Your task to perform on an android device: turn off improve location accuracy Image 0: 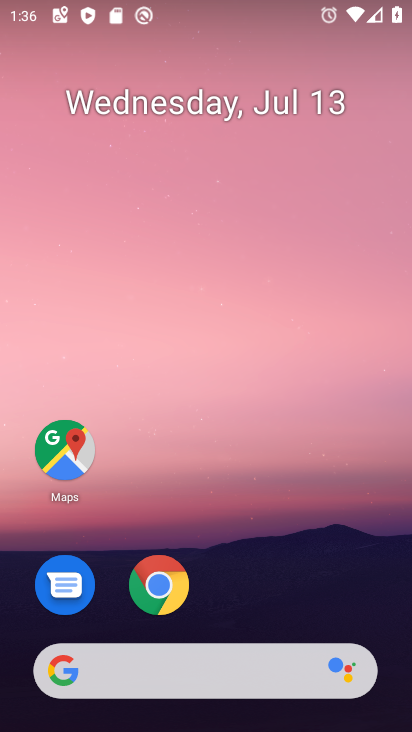
Step 0: press home button
Your task to perform on an android device: turn off improve location accuracy Image 1: 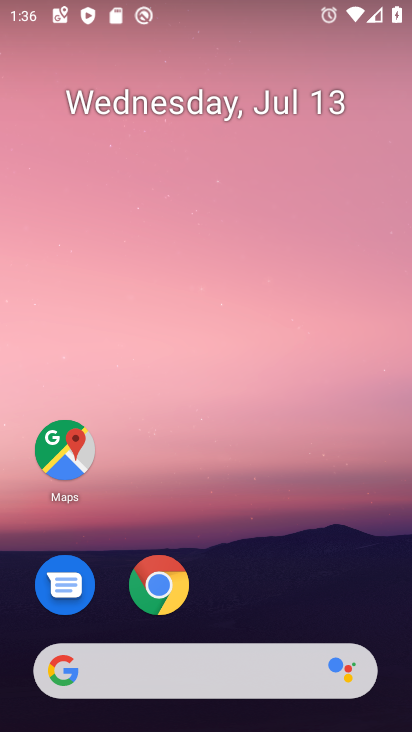
Step 1: drag from (162, 639) to (290, 1)
Your task to perform on an android device: turn off improve location accuracy Image 2: 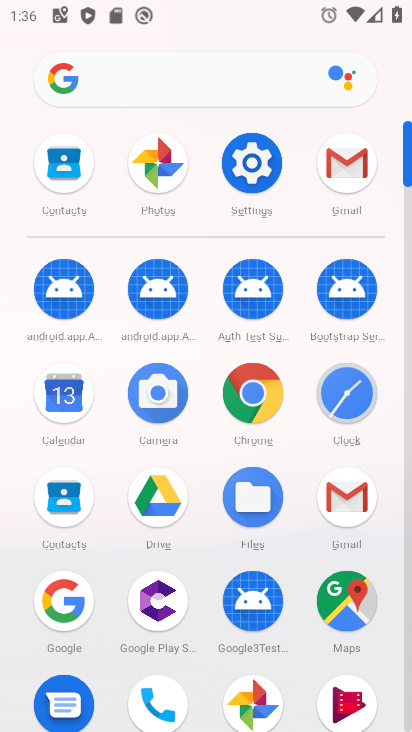
Step 2: click (268, 174)
Your task to perform on an android device: turn off improve location accuracy Image 3: 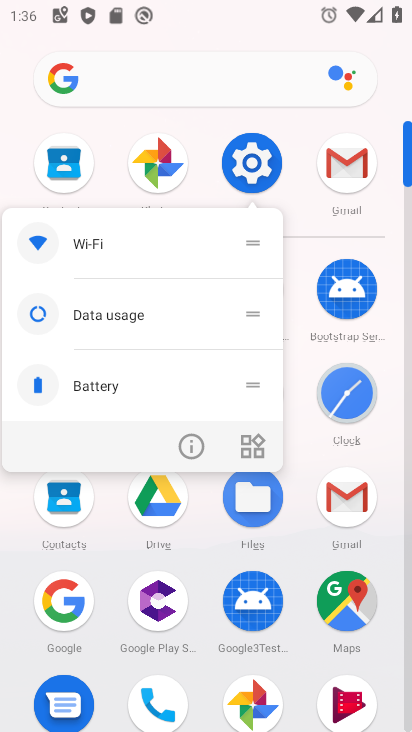
Step 3: click (246, 156)
Your task to perform on an android device: turn off improve location accuracy Image 4: 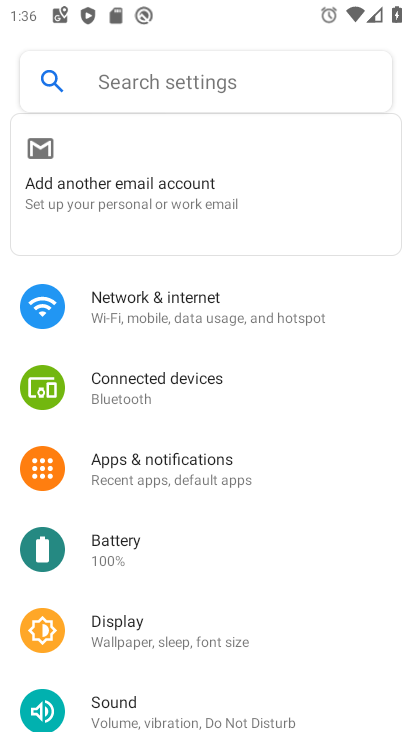
Step 4: drag from (187, 609) to (292, 63)
Your task to perform on an android device: turn off improve location accuracy Image 5: 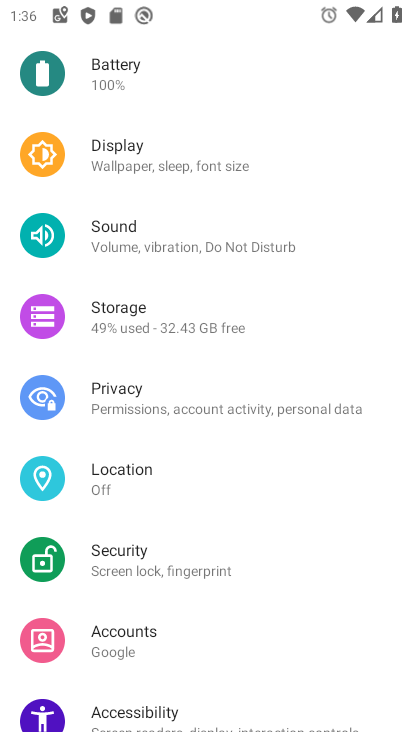
Step 5: click (135, 500)
Your task to perform on an android device: turn off improve location accuracy Image 6: 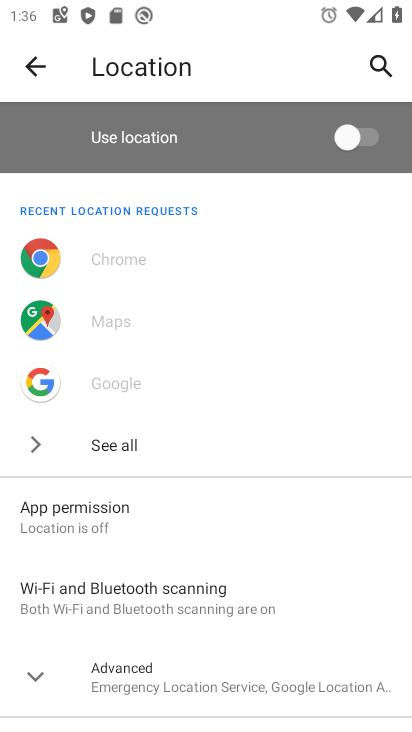
Step 6: drag from (188, 615) to (266, 133)
Your task to perform on an android device: turn off improve location accuracy Image 7: 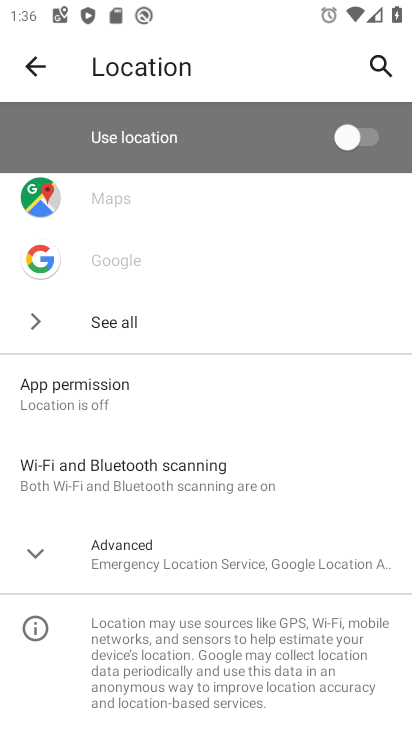
Step 7: click (142, 554)
Your task to perform on an android device: turn off improve location accuracy Image 8: 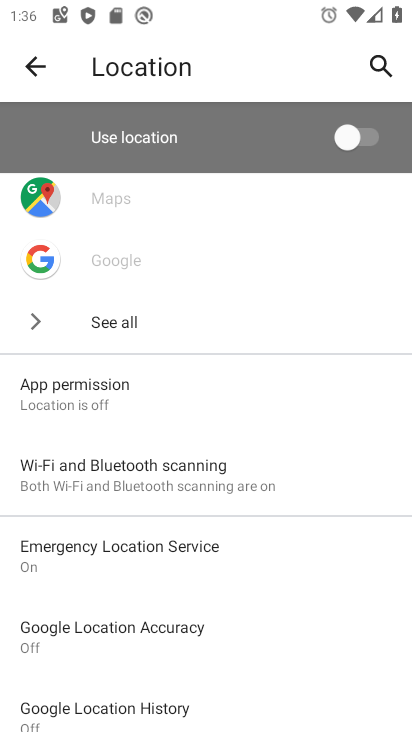
Step 8: click (150, 616)
Your task to perform on an android device: turn off improve location accuracy Image 9: 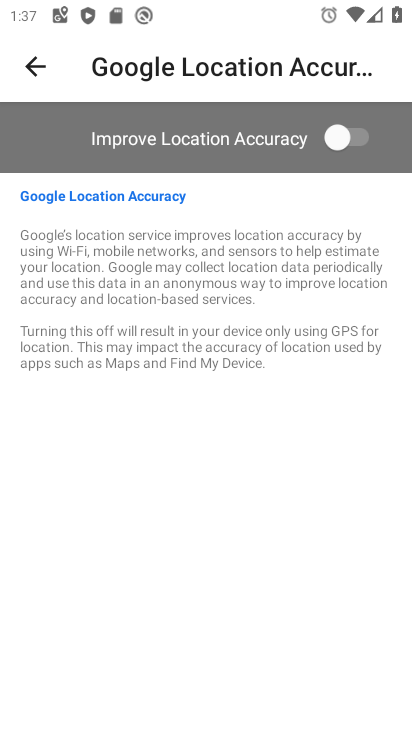
Step 9: task complete